Your task to perform on an android device: Go to accessibility settings Image 0: 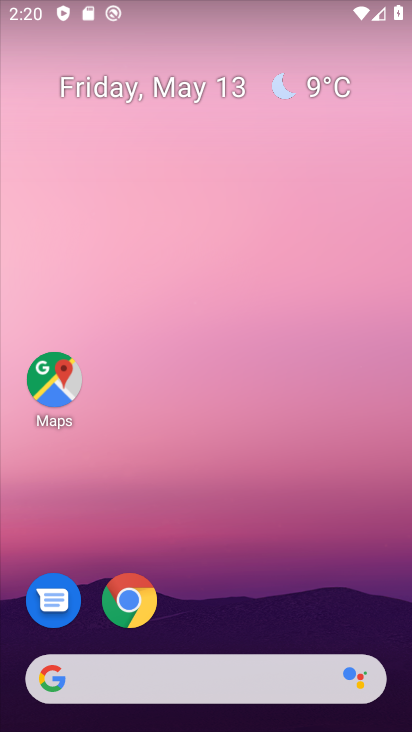
Step 0: drag from (307, 609) to (270, 178)
Your task to perform on an android device: Go to accessibility settings Image 1: 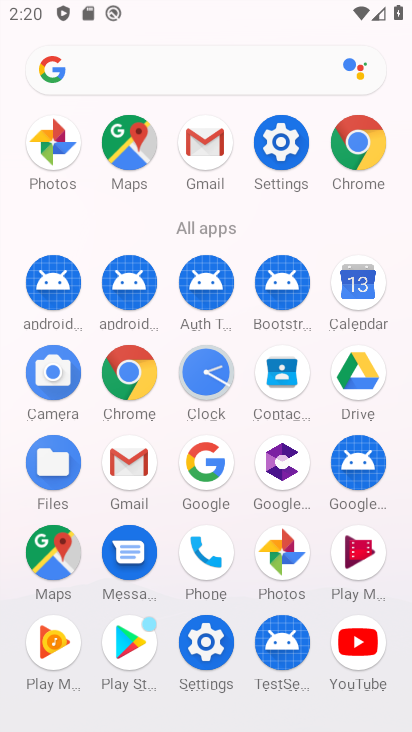
Step 1: click (286, 128)
Your task to perform on an android device: Go to accessibility settings Image 2: 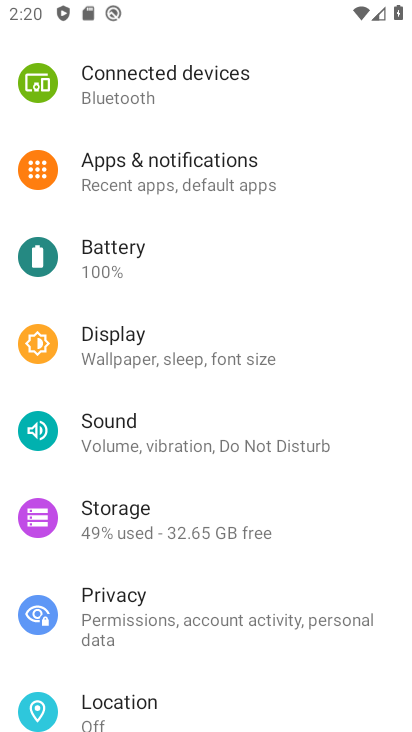
Step 2: drag from (277, 656) to (318, 175)
Your task to perform on an android device: Go to accessibility settings Image 3: 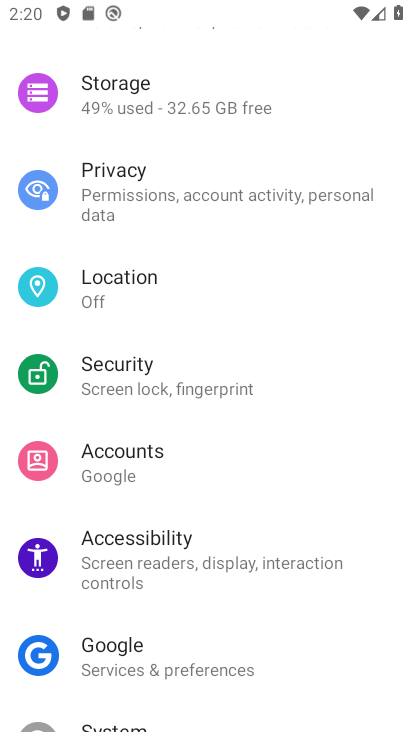
Step 3: click (182, 549)
Your task to perform on an android device: Go to accessibility settings Image 4: 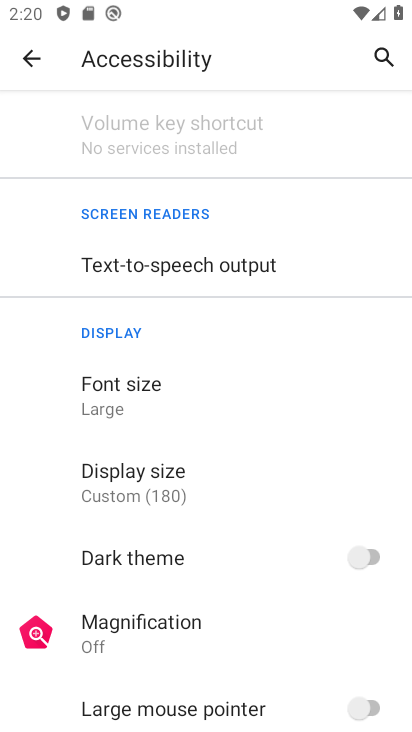
Step 4: task complete